Your task to perform on an android device: Add "energizer triple a" to the cart on newegg.com, then select checkout. Image 0: 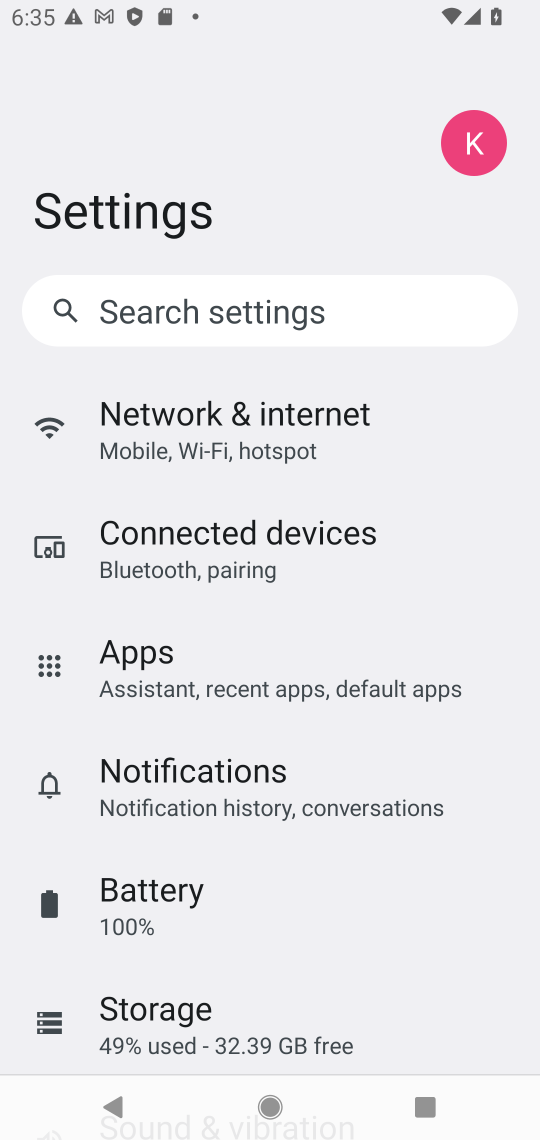
Step 0: press home button
Your task to perform on an android device: Add "energizer triple a" to the cart on newegg.com, then select checkout. Image 1: 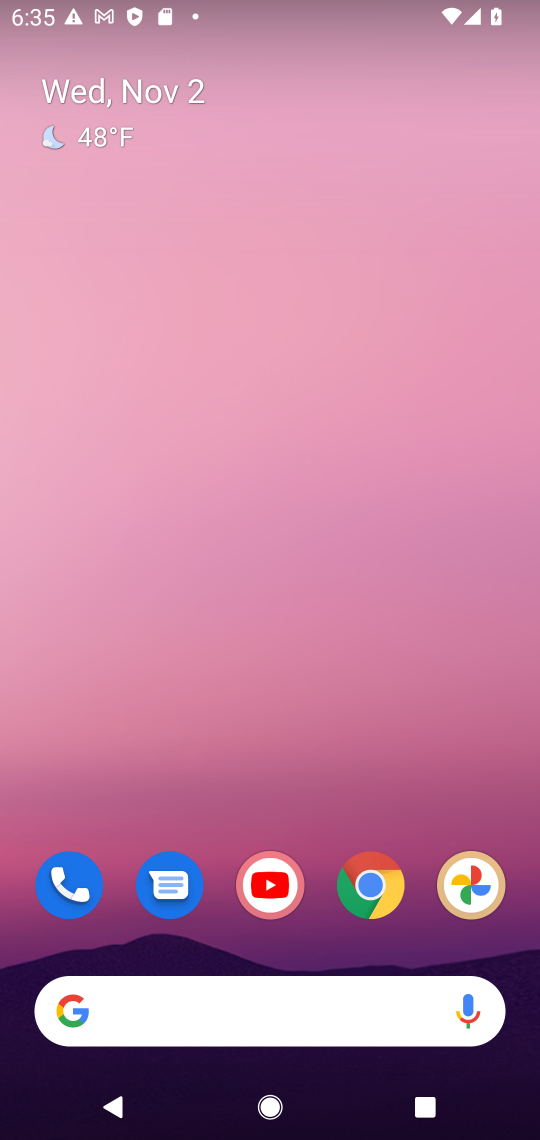
Step 1: drag from (335, 936) to (282, 1)
Your task to perform on an android device: Add "energizer triple a" to the cart on newegg.com, then select checkout. Image 2: 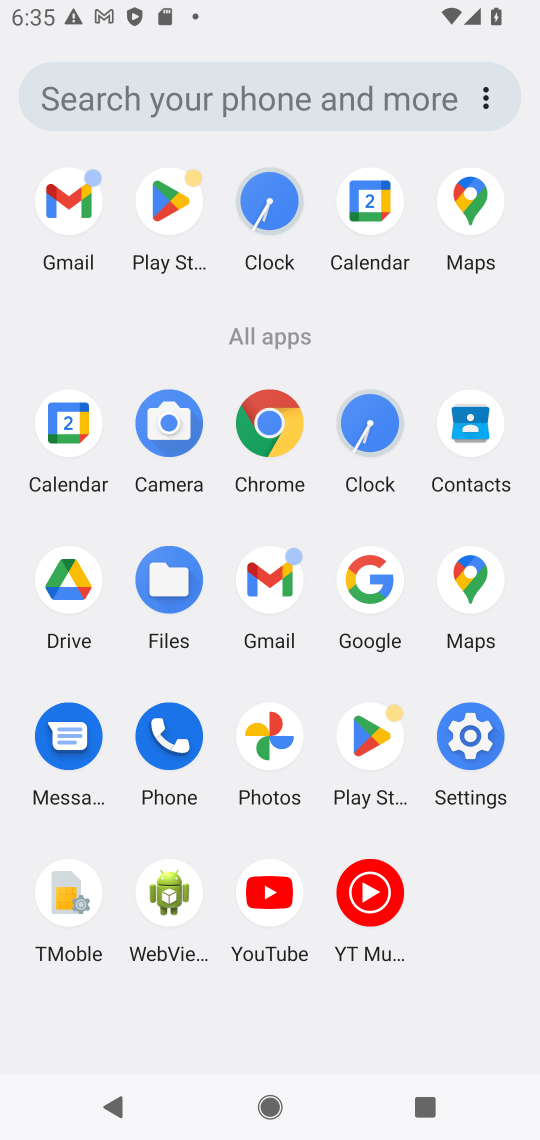
Step 2: click (386, 587)
Your task to perform on an android device: Add "energizer triple a" to the cart on newegg.com, then select checkout. Image 3: 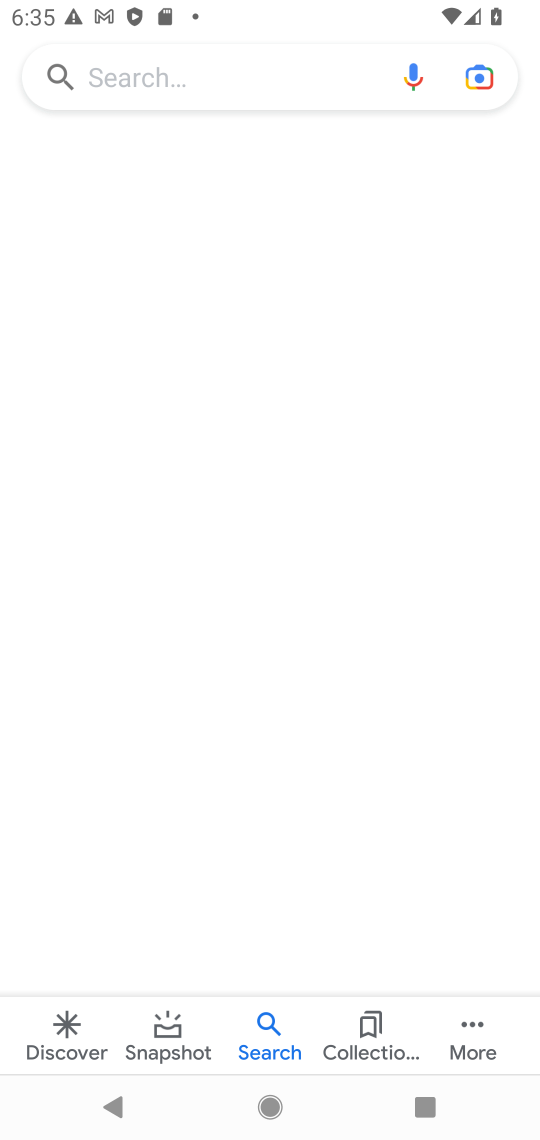
Step 3: click (253, 67)
Your task to perform on an android device: Add "energizer triple a" to the cart on newegg.com, then select checkout. Image 4: 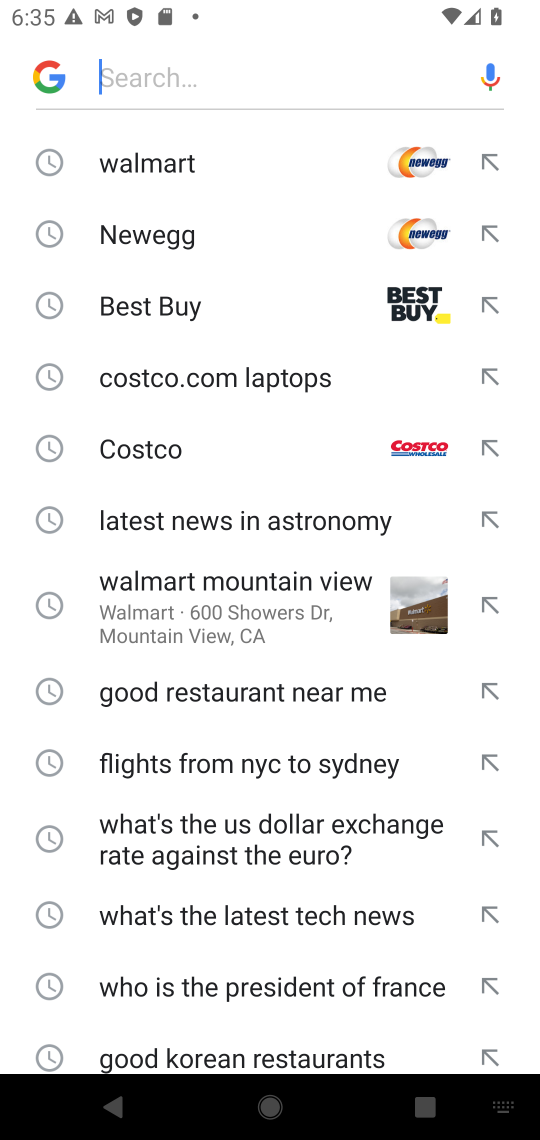
Step 4: type "newegg.com"
Your task to perform on an android device: Add "energizer triple a" to the cart on newegg.com, then select checkout. Image 5: 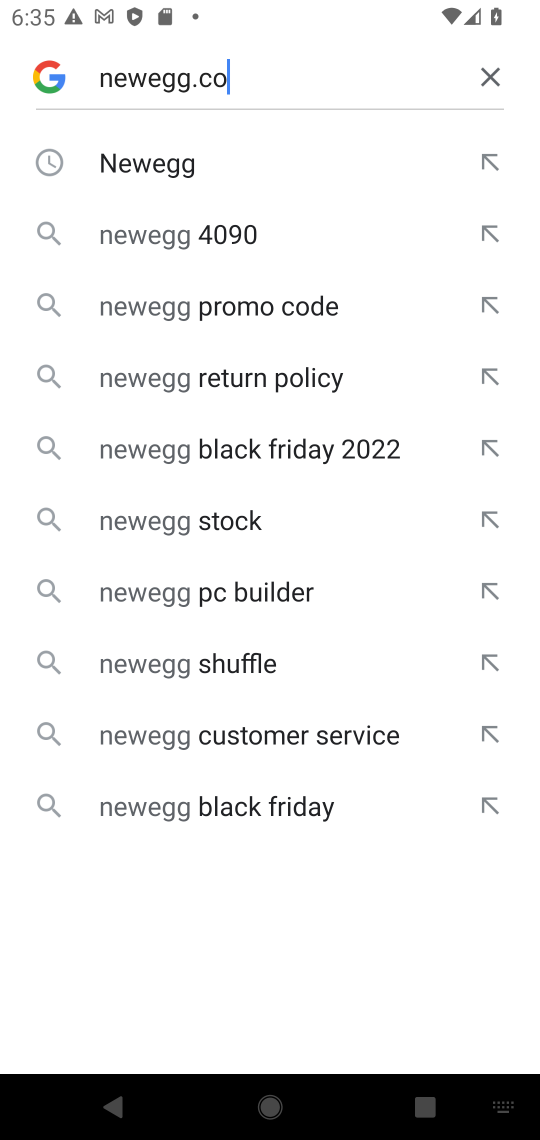
Step 5: type ""
Your task to perform on an android device: Add "energizer triple a" to the cart on newegg.com, then select checkout. Image 6: 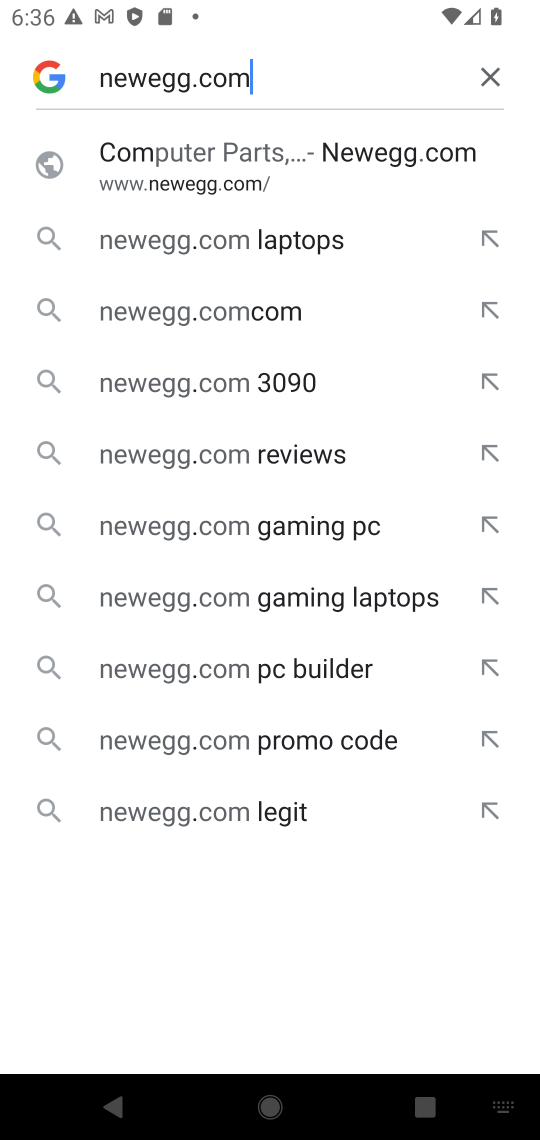
Step 6: click (210, 315)
Your task to perform on an android device: Add "energizer triple a" to the cart on newegg.com, then select checkout. Image 7: 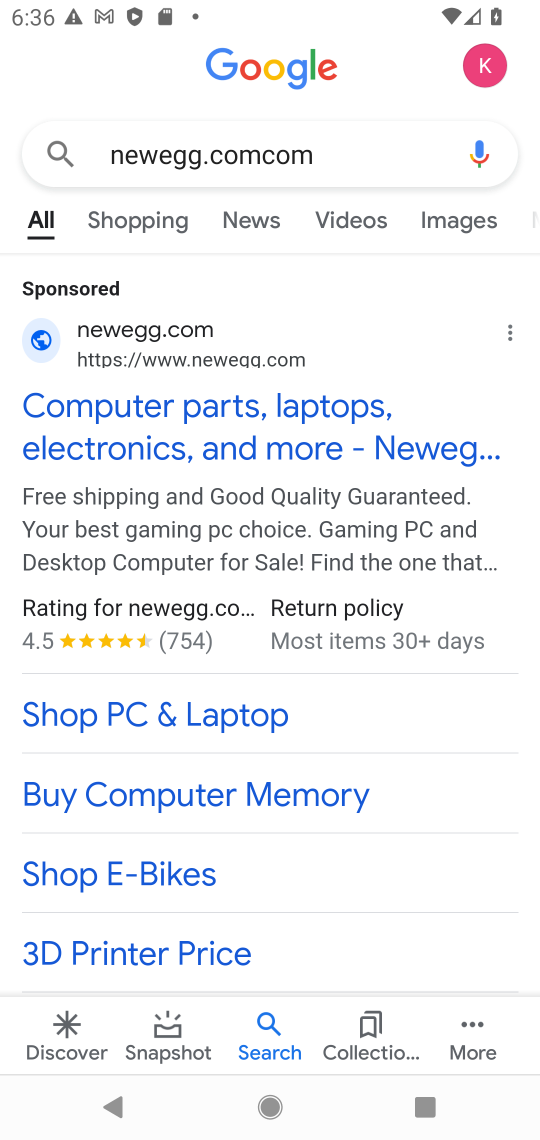
Step 7: click (173, 411)
Your task to perform on an android device: Add "energizer triple a" to the cart on newegg.com, then select checkout. Image 8: 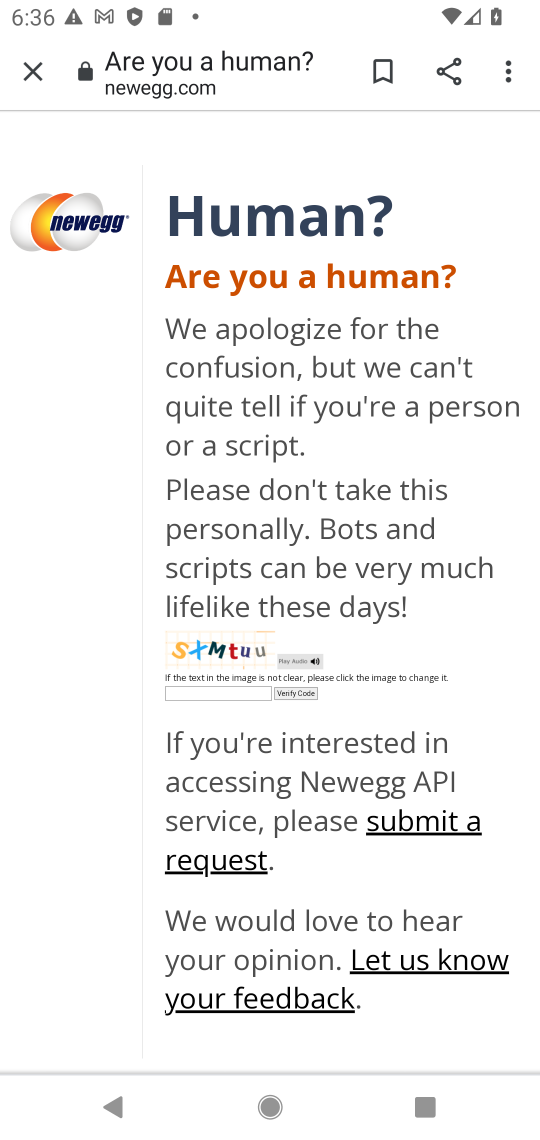
Step 8: task complete